Your task to perform on an android device: What is the capital of Mexico? Image 0: 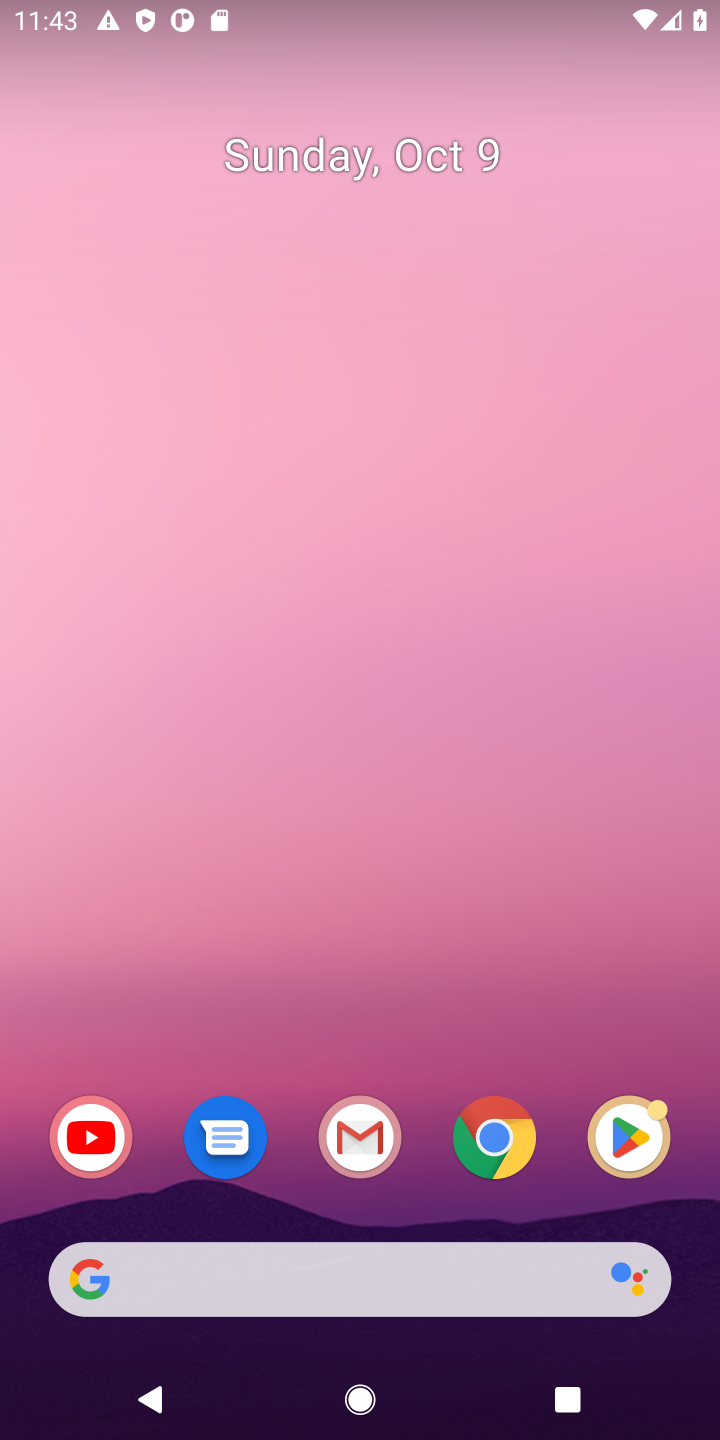
Step 0: drag from (414, 1087) to (312, 86)
Your task to perform on an android device: What is the capital of Mexico? Image 1: 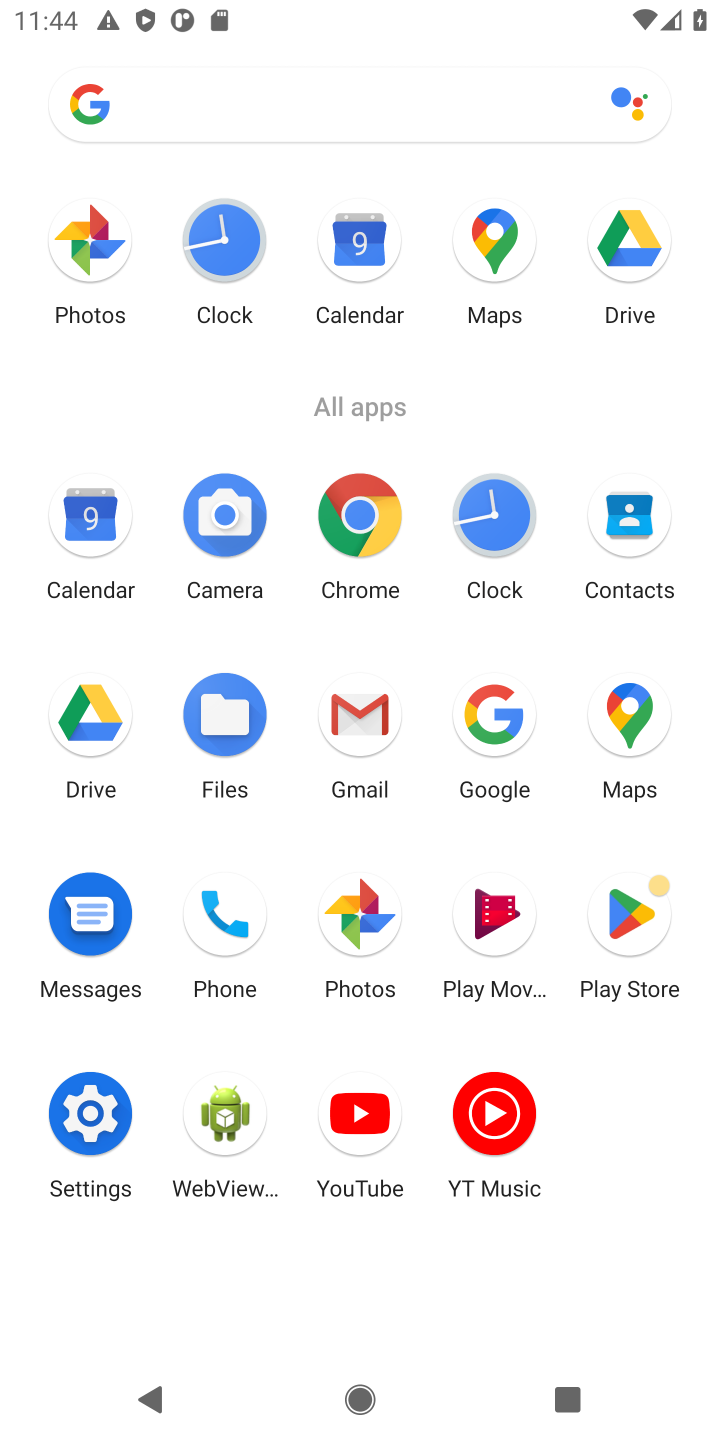
Step 1: click (353, 507)
Your task to perform on an android device: What is the capital of Mexico? Image 2: 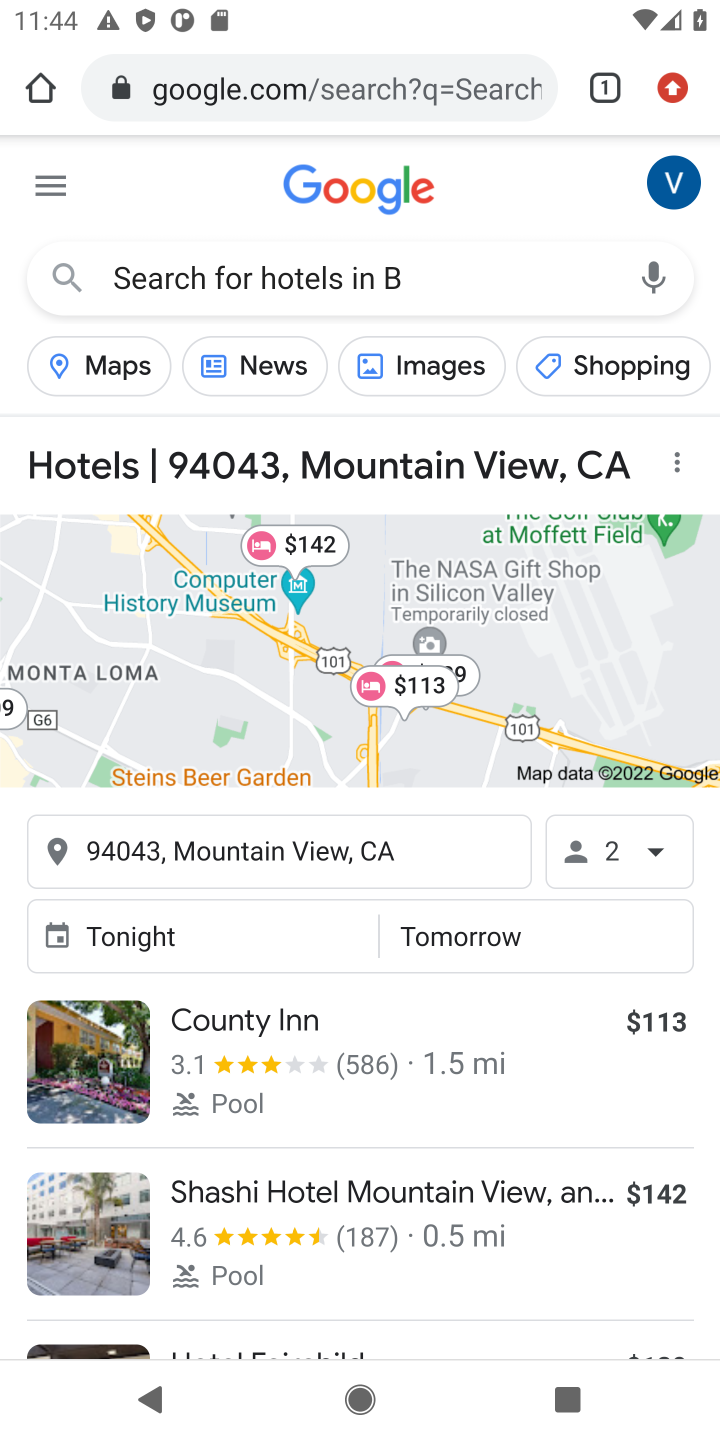
Step 2: click (327, 88)
Your task to perform on an android device: What is the capital of Mexico? Image 3: 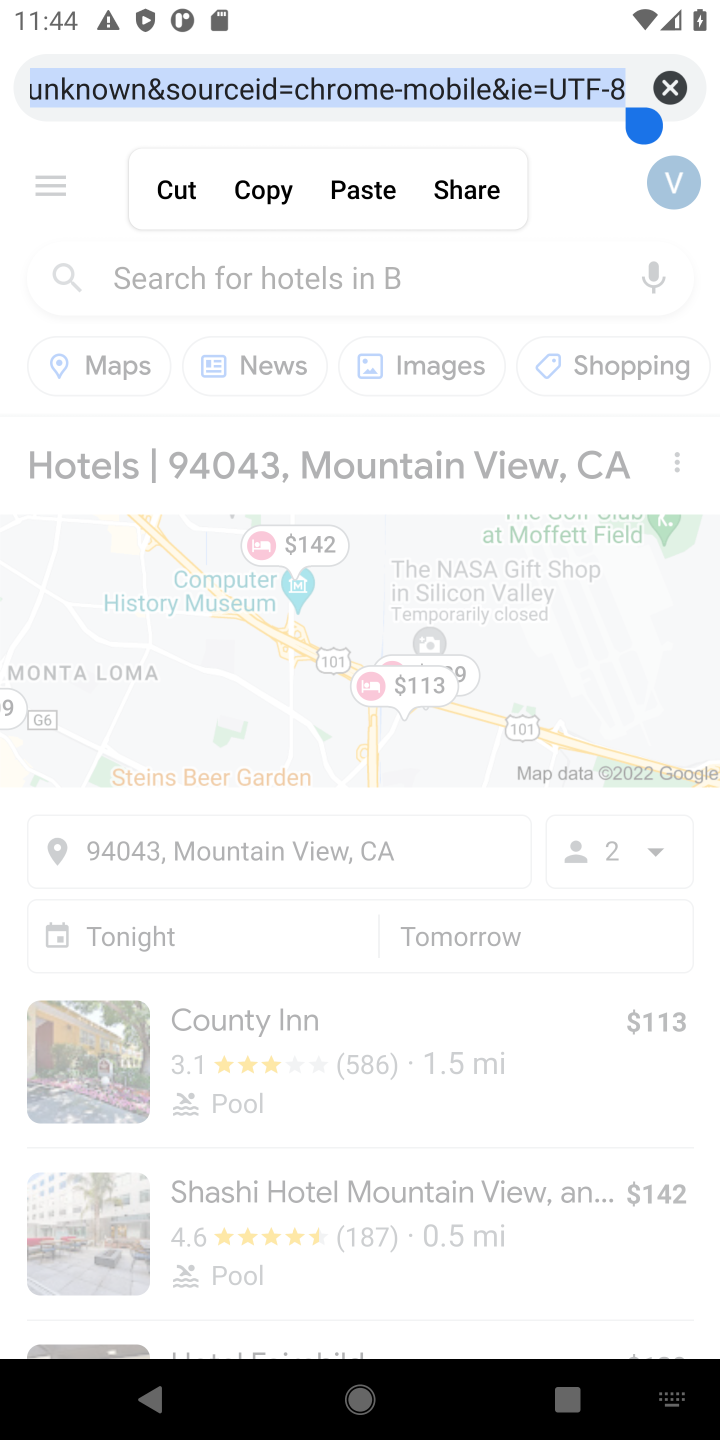
Step 3: click (666, 100)
Your task to perform on an android device: What is the capital of Mexico? Image 4: 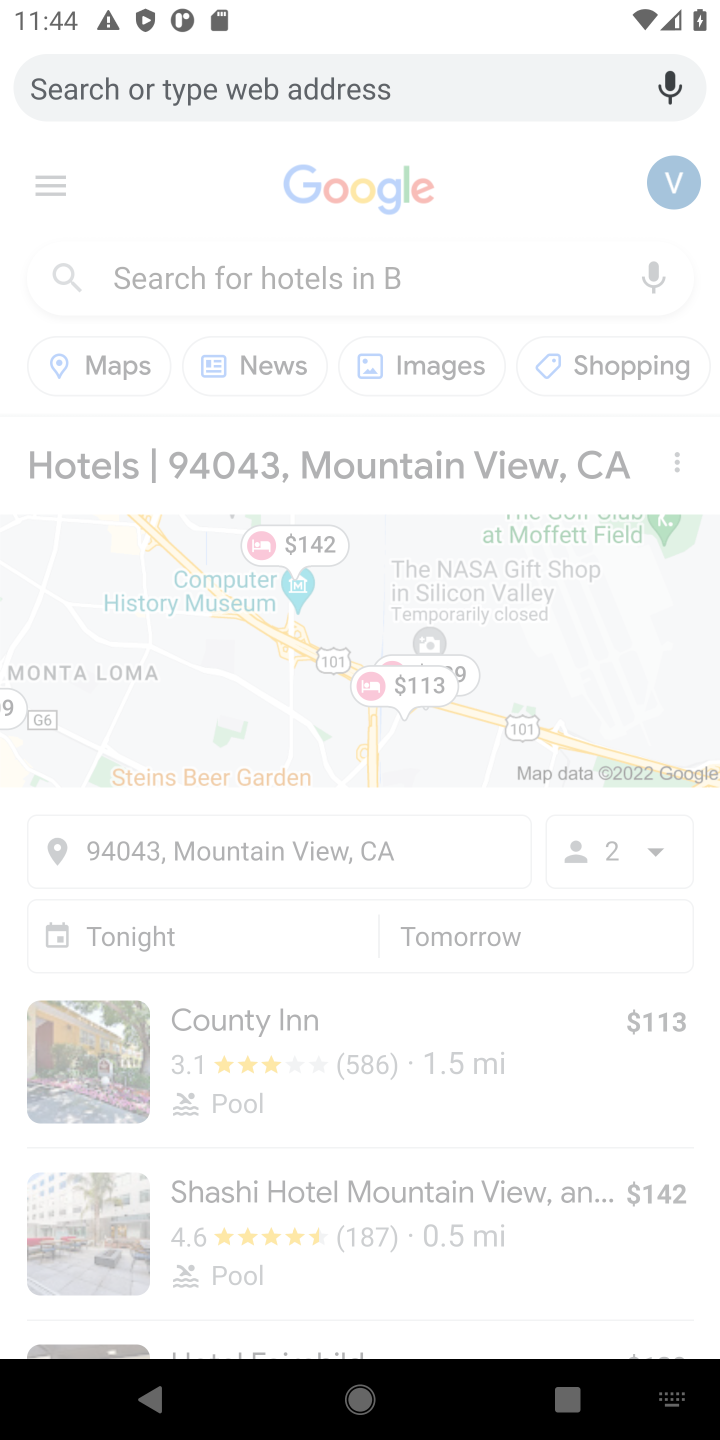
Step 4: type "What is the capital of Mexico?"
Your task to perform on an android device: What is the capital of Mexico? Image 5: 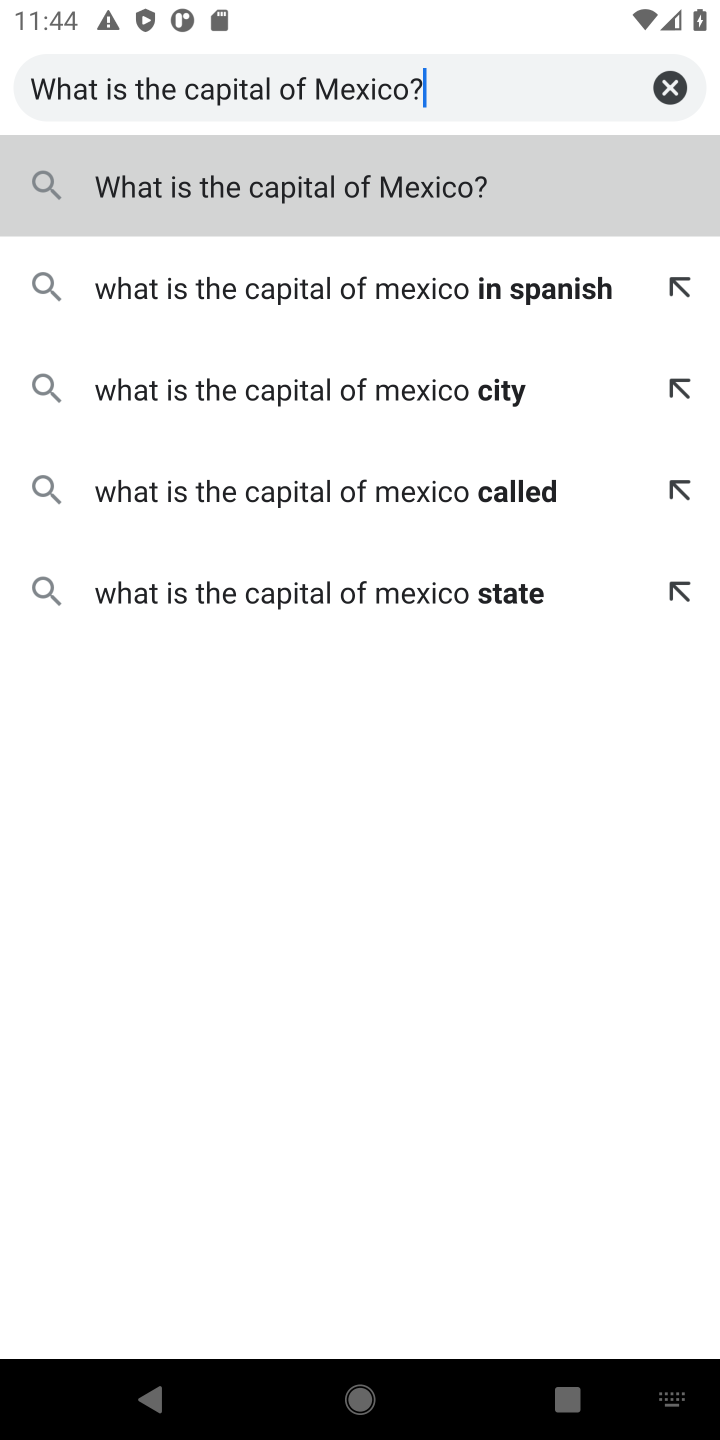
Step 5: click (276, 172)
Your task to perform on an android device: What is the capital of Mexico? Image 6: 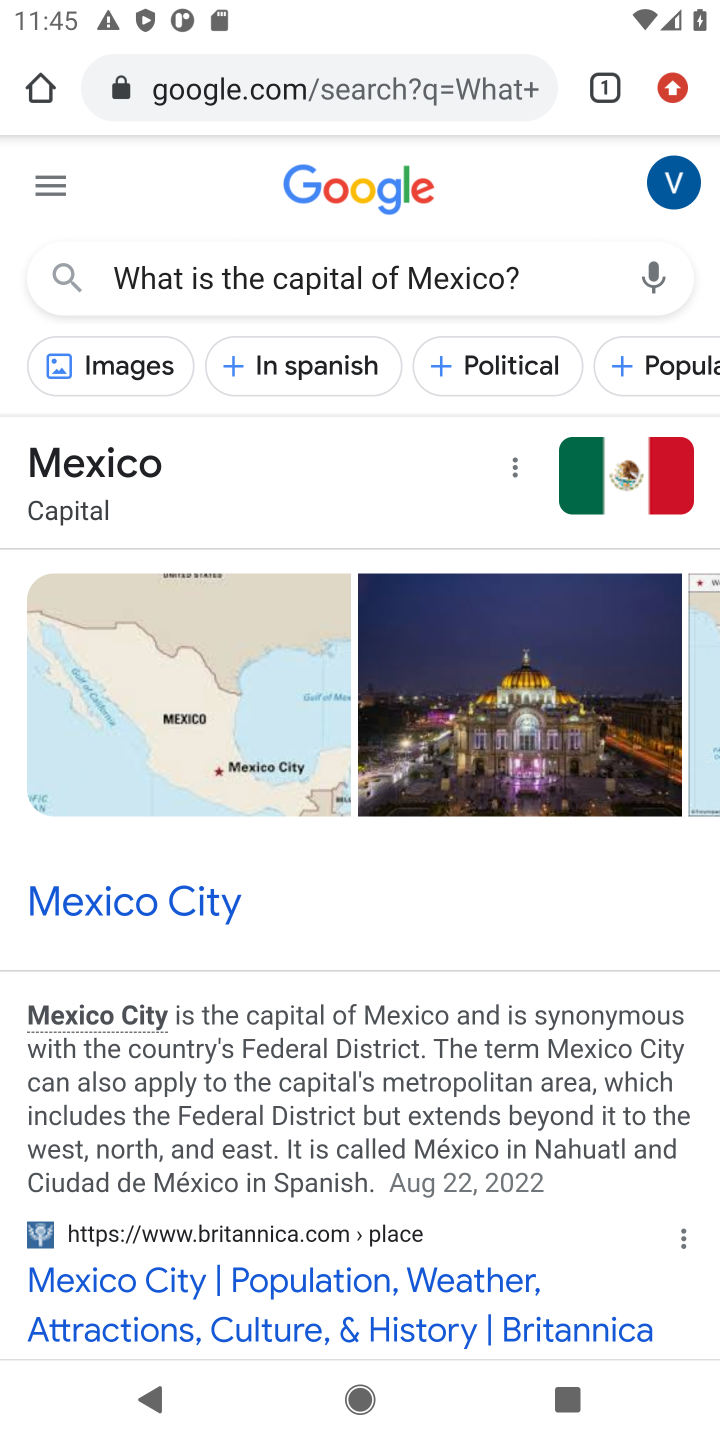
Step 6: task complete